Your task to perform on an android device: Go to wifi settings Image 0: 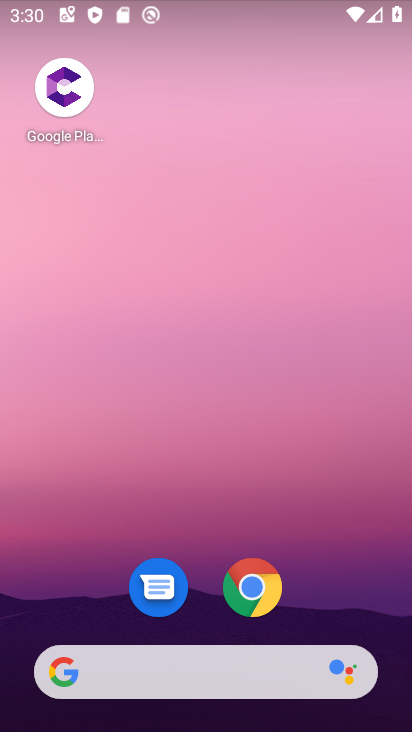
Step 0: drag from (323, 606) to (242, 3)
Your task to perform on an android device: Go to wifi settings Image 1: 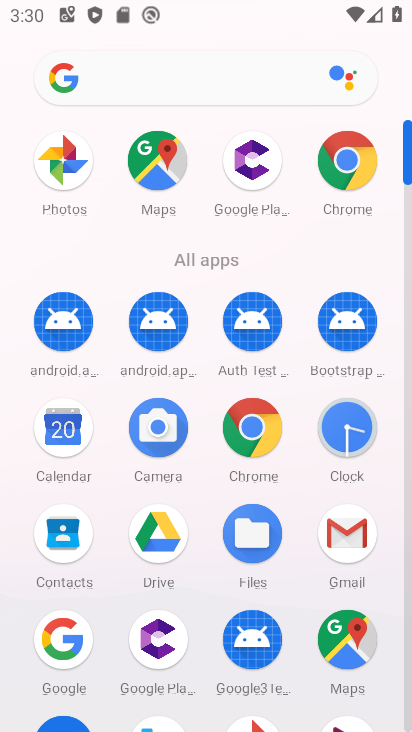
Step 1: drag from (5, 566) to (5, 181)
Your task to perform on an android device: Go to wifi settings Image 2: 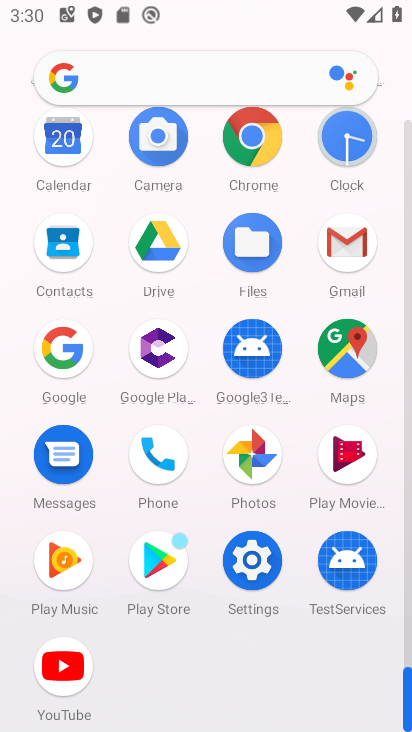
Step 2: click (253, 557)
Your task to perform on an android device: Go to wifi settings Image 3: 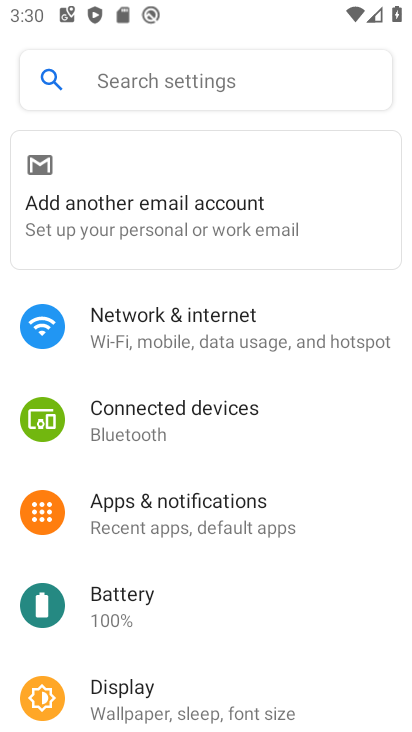
Step 3: click (175, 329)
Your task to perform on an android device: Go to wifi settings Image 4: 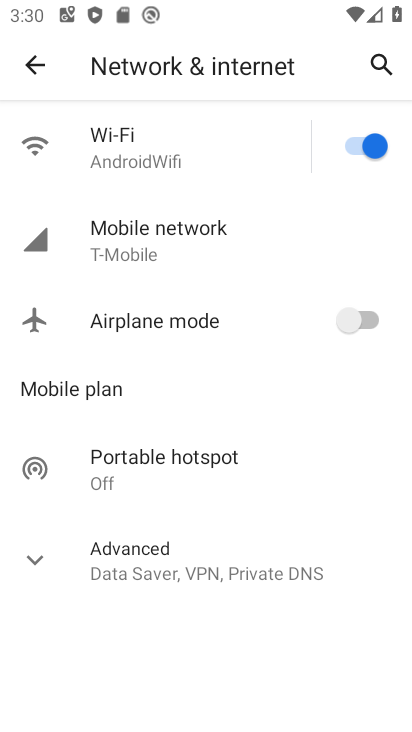
Step 4: click (145, 143)
Your task to perform on an android device: Go to wifi settings Image 5: 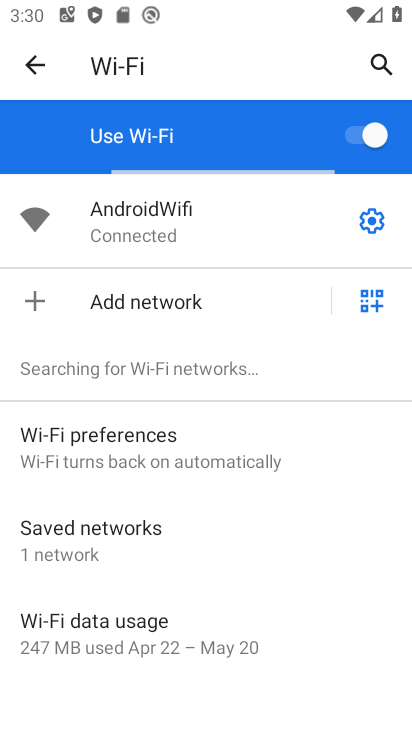
Step 5: task complete